Your task to perform on an android device: change keyboard looks Image 0: 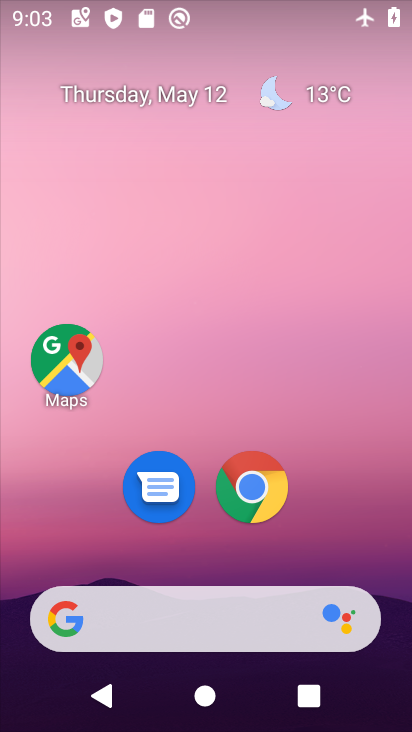
Step 0: drag from (385, 495) to (338, 39)
Your task to perform on an android device: change keyboard looks Image 1: 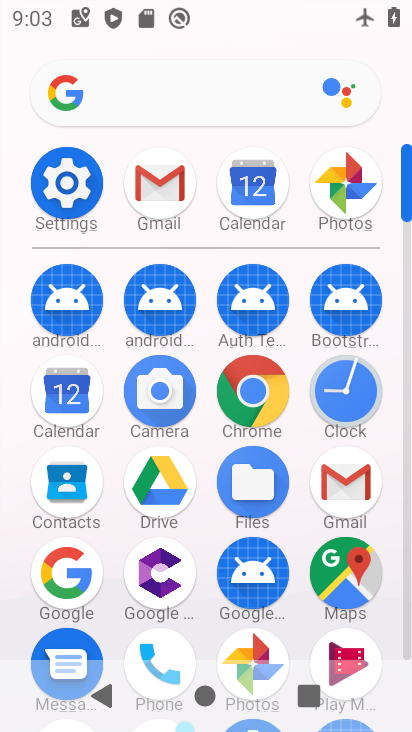
Step 1: click (60, 185)
Your task to perform on an android device: change keyboard looks Image 2: 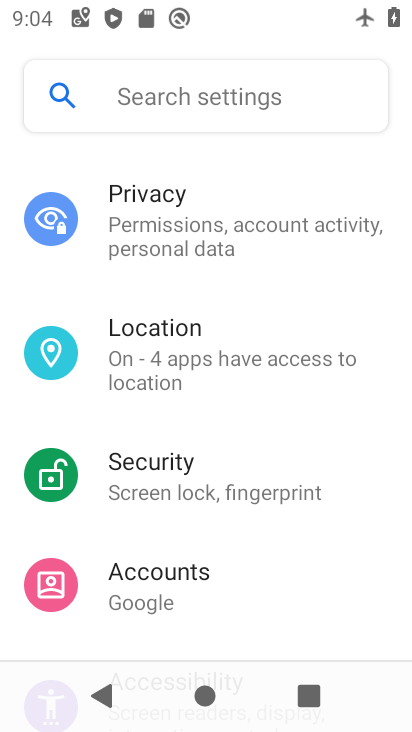
Step 2: drag from (318, 522) to (287, 25)
Your task to perform on an android device: change keyboard looks Image 3: 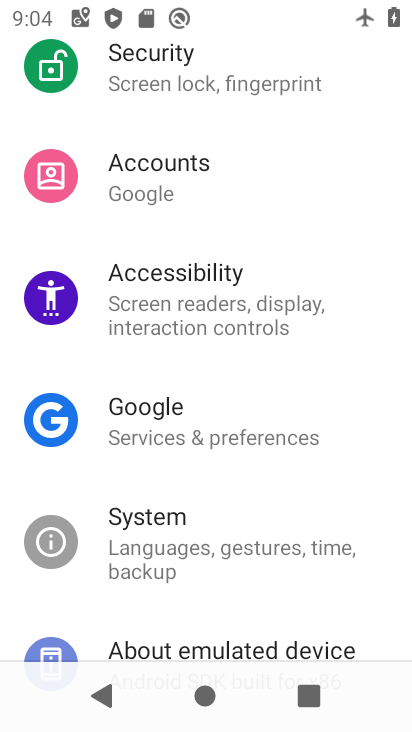
Step 3: click (153, 547)
Your task to perform on an android device: change keyboard looks Image 4: 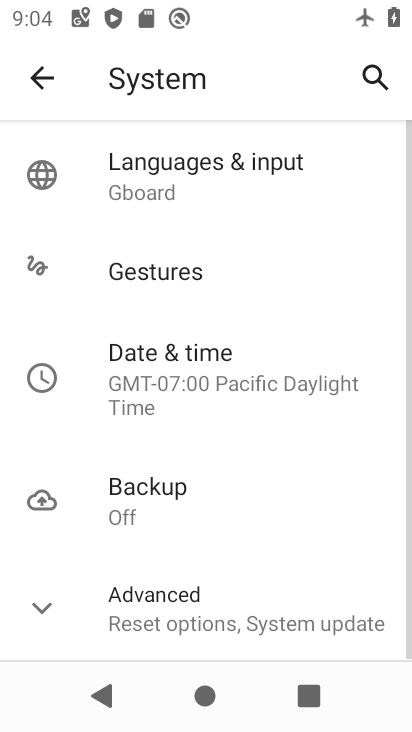
Step 4: click (160, 189)
Your task to perform on an android device: change keyboard looks Image 5: 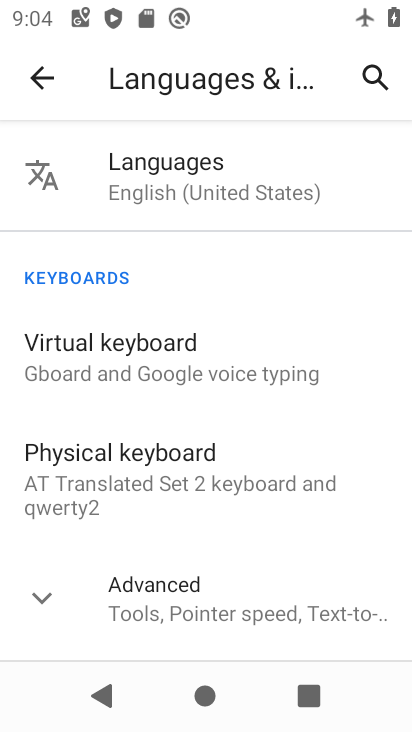
Step 5: click (107, 345)
Your task to perform on an android device: change keyboard looks Image 6: 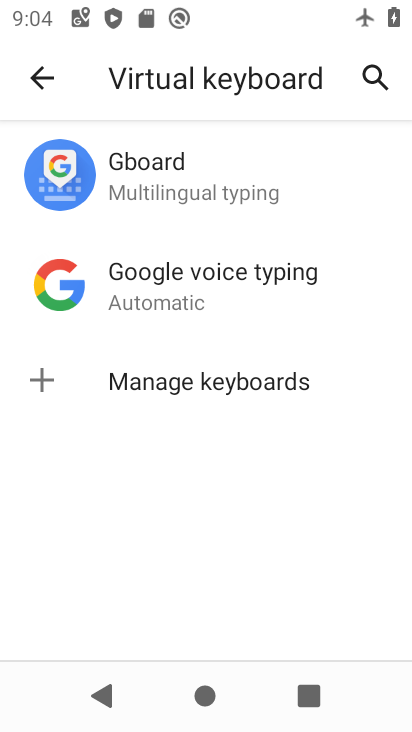
Step 6: click (127, 200)
Your task to perform on an android device: change keyboard looks Image 7: 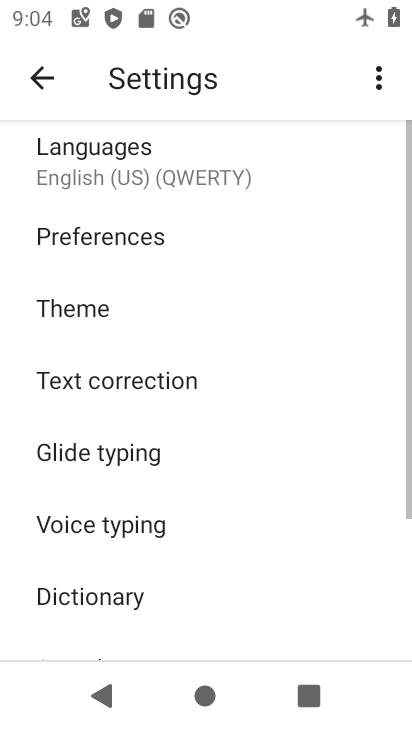
Step 7: click (86, 315)
Your task to perform on an android device: change keyboard looks Image 8: 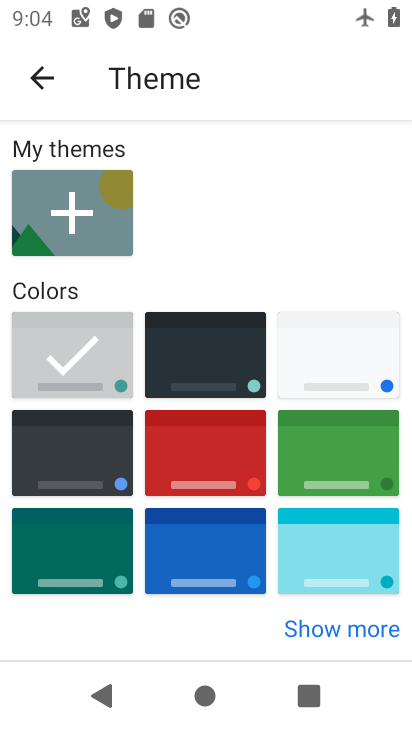
Step 8: click (200, 463)
Your task to perform on an android device: change keyboard looks Image 9: 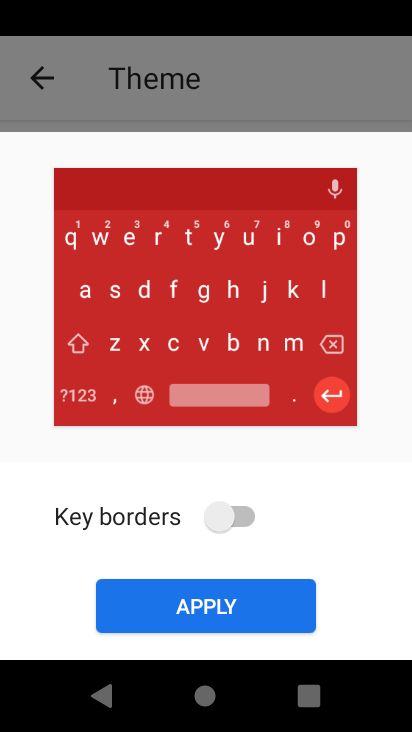
Step 9: click (203, 509)
Your task to perform on an android device: change keyboard looks Image 10: 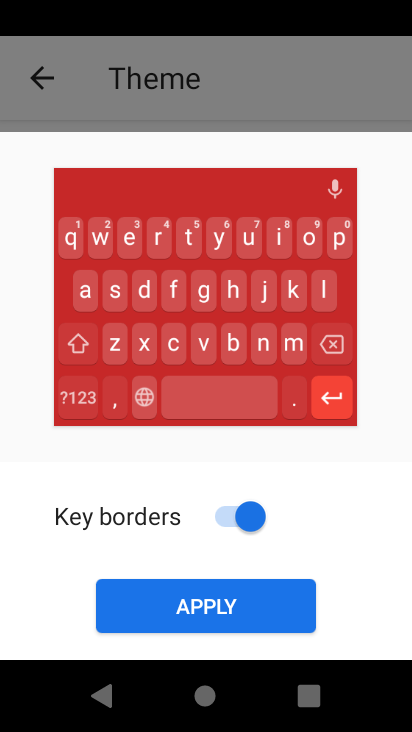
Step 10: click (218, 613)
Your task to perform on an android device: change keyboard looks Image 11: 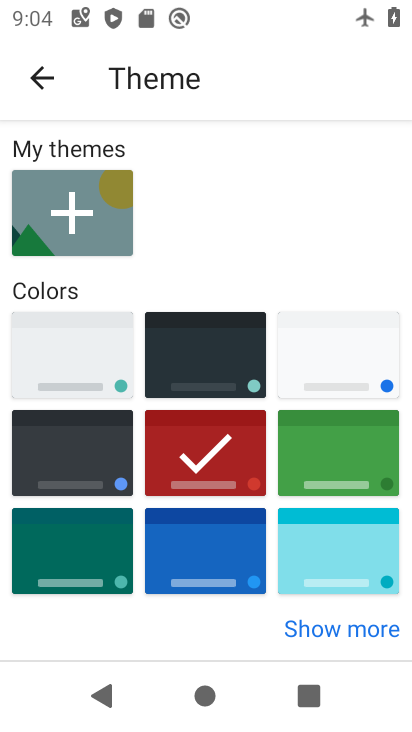
Step 11: task complete